Your task to perform on an android device: Check the news Image 0: 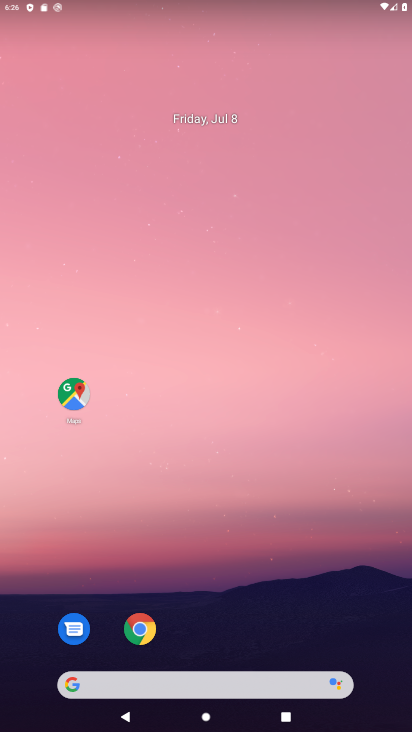
Step 0: click (127, 639)
Your task to perform on an android device: Check the news Image 1: 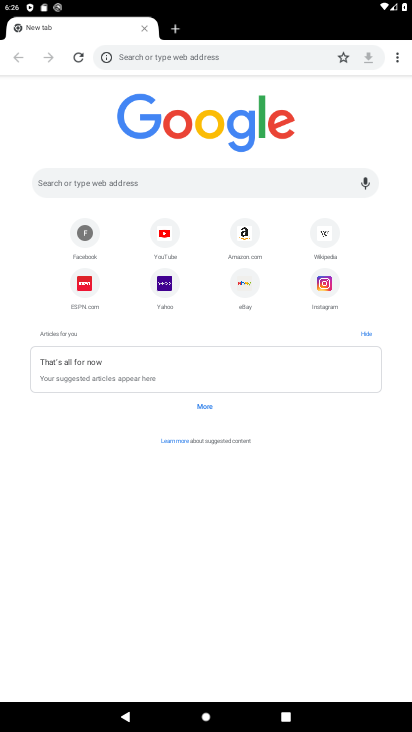
Step 1: click (150, 59)
Your task to perform on an android device: Check the news Image 2: 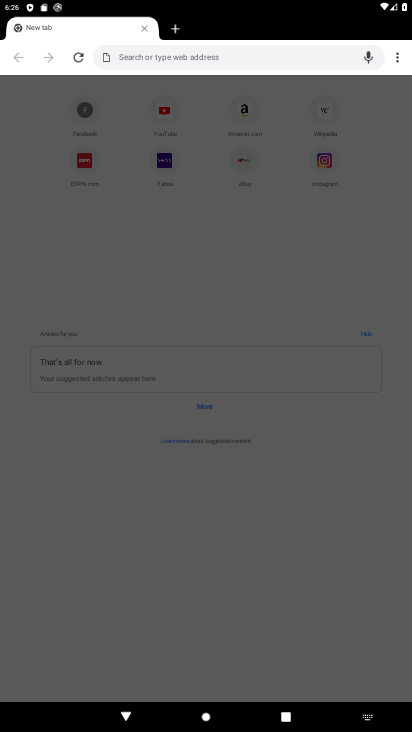
Step 2: type " news"
Your task to perform on an android device: Check the news Image 3: 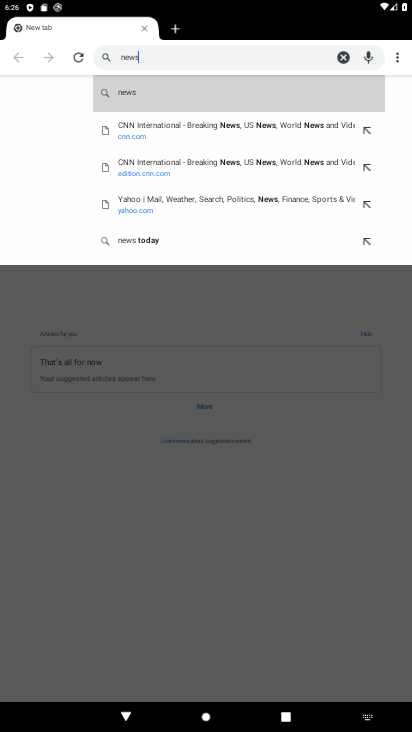
Step 3: type ""
Your task to perform on an android device: Check the news Image 4: 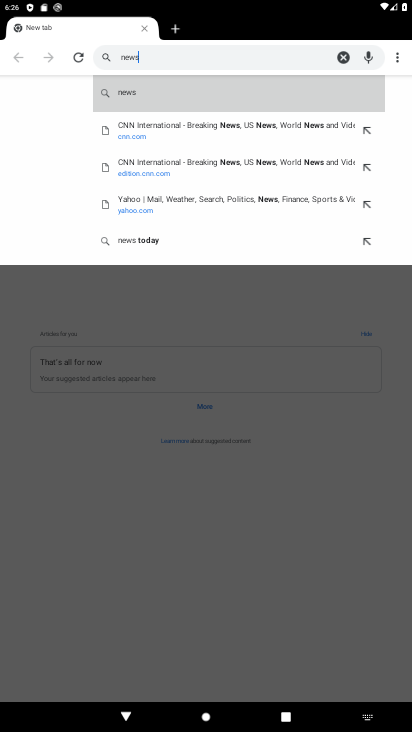
Step 4: click (244, 91)
Your task to perform on an android device: Check the news Image 5: 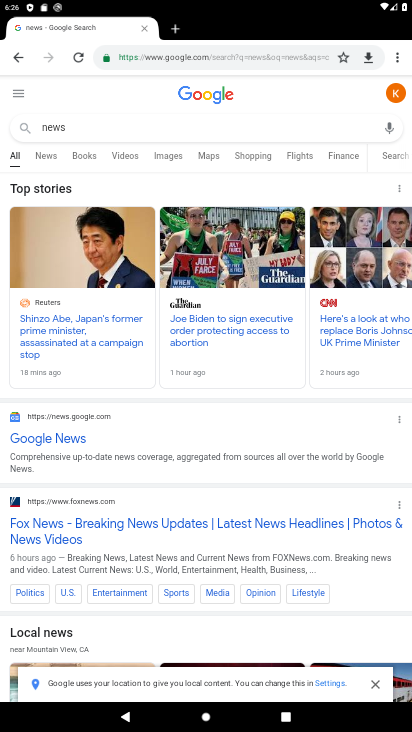
Step 5: task complete